Your task to perform on an android device: check the backup settings in the google photos Image 0: 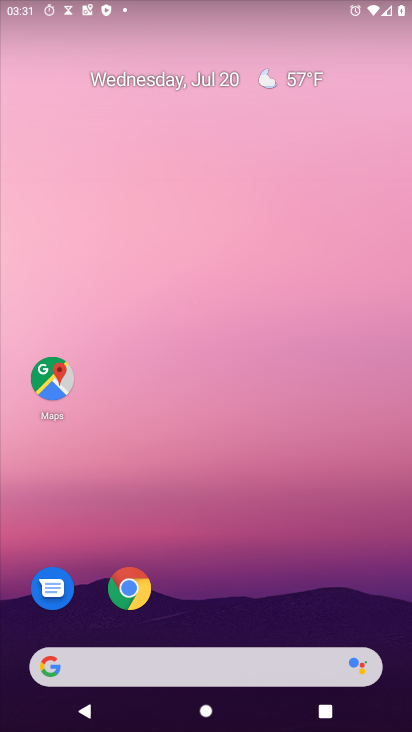
Step 0: drag from (199, 644) to (264, 0)
Your task to perform on an android device: check the backup settings in the google photos Image 1: 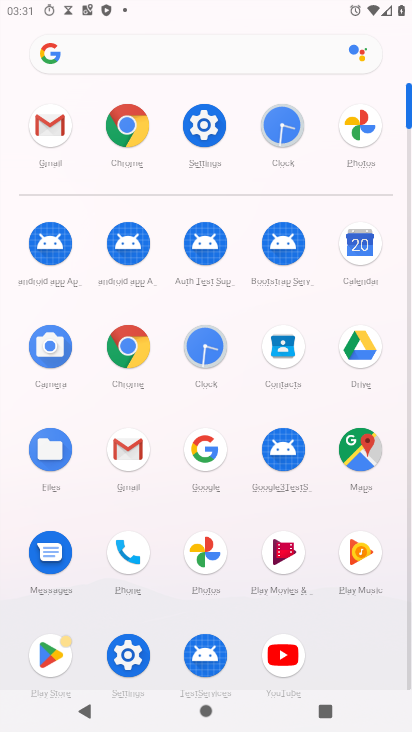
Step 1: click (211, 551)
Your task to perform on an android device: check the backup settings in the google photos Image 2: 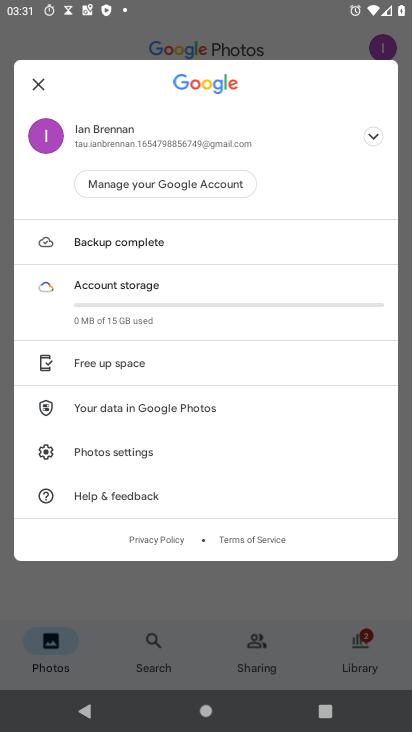
Step 2: click (117, 455)
Your task to perform on an android device: check the backup settings in the google photos Image 3: 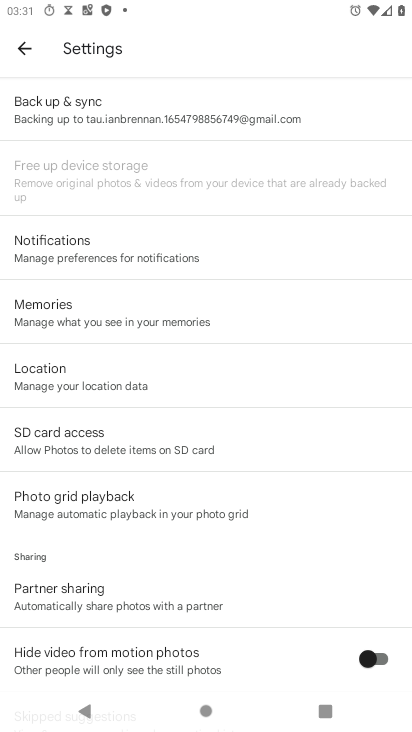
Step 3: click (77, 98)
Your task to perform on an android device: check the backup settings in the google photos Image 4: 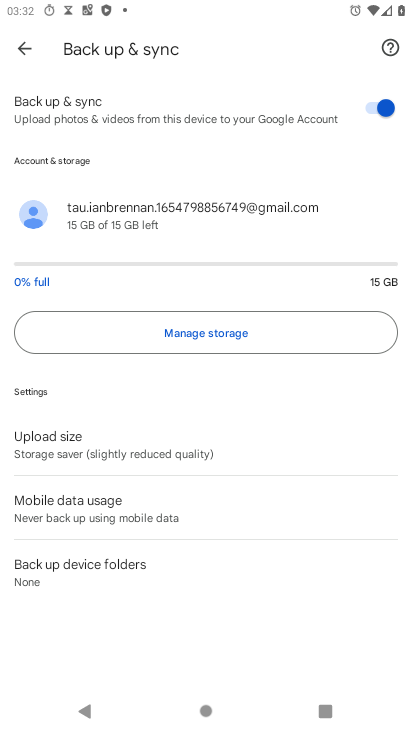
Step 4: task complete